Your task to perform on an android device: turn off notifications settings in the gmail app Image 0: 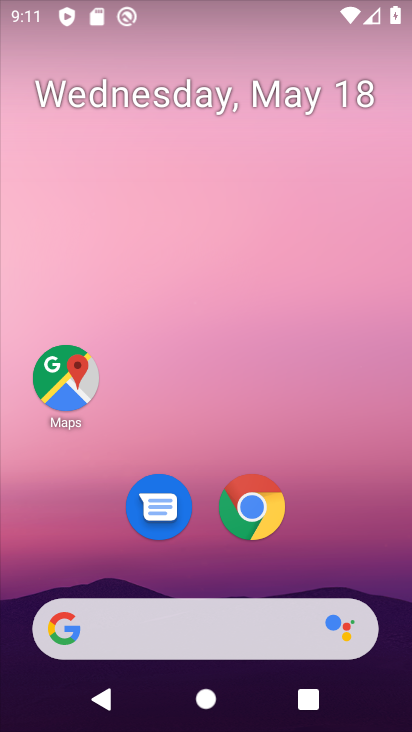
Step 0: drag from (300, 532) to (311, 115)
Your task to perform on an android device: turn off notifications settings in the gmail app Image 1: 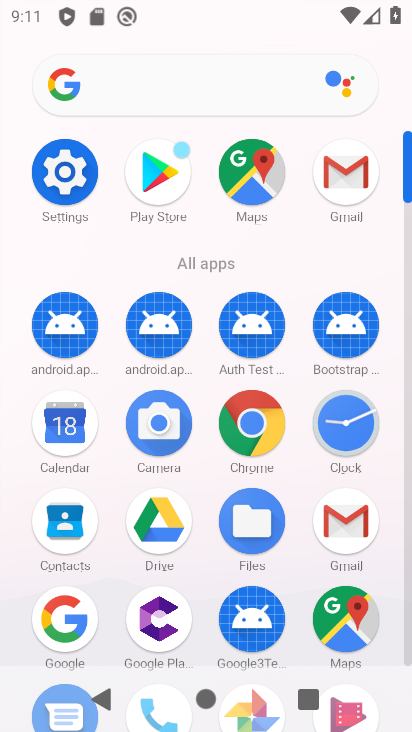
Step 1: click (335, 186)
Your task to perform on an android device: turn off notifications settings in the gmail app Image 2: 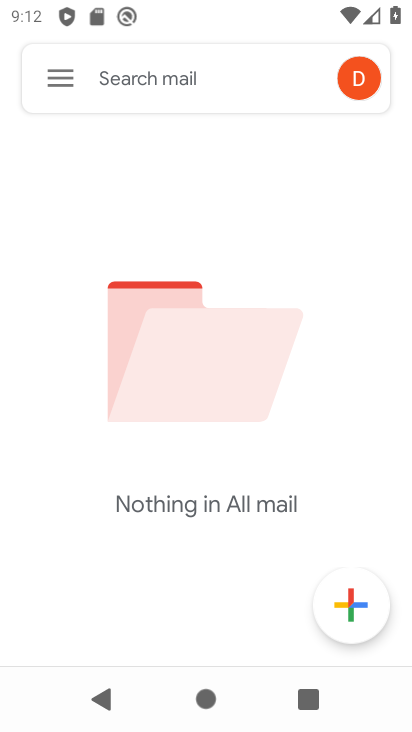
Step 2: click (51, 74)
Your task to perform on an android device: turn off notifications settings in the gmail app Image 3: 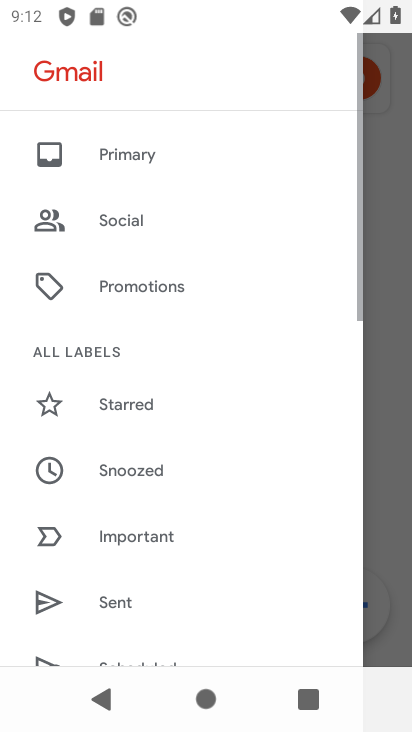
Step 3: drag from (213, 595) to (133, 26)
Your task to perform on an android device: turn off notifications settings in the gmail app Image 4: 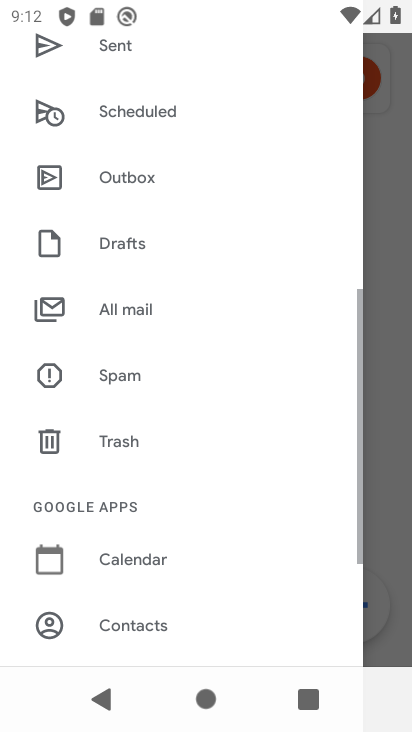
Step 4: drag from (145, 485) to (214, 57)
Your task to perform on an android device: turn off notifications settings in the gmail app Image 5: 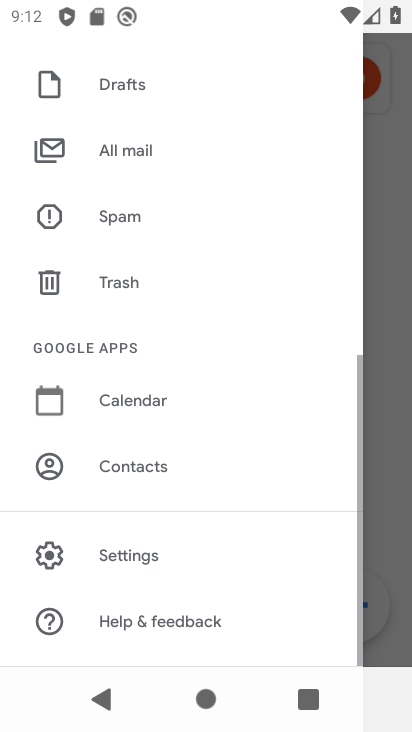
Step 5: click (140, 559)
Your task to perform on an android device: turn off notifications settings in the gmail app Image 6: 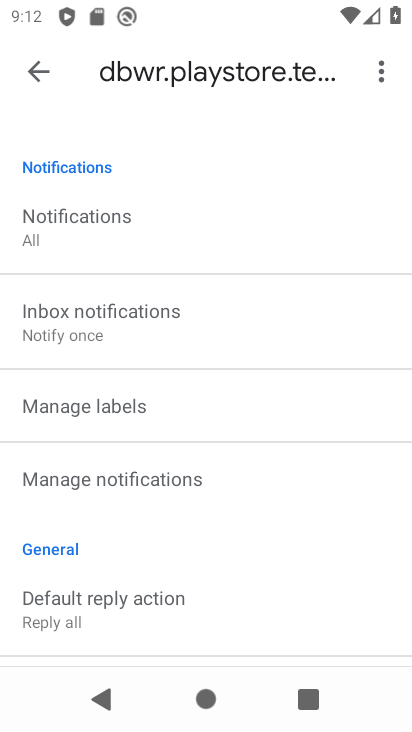
Step 6: click (95, 492)
Your task to perform on an android device: turn off notifications settings in the gmail app Image 7: 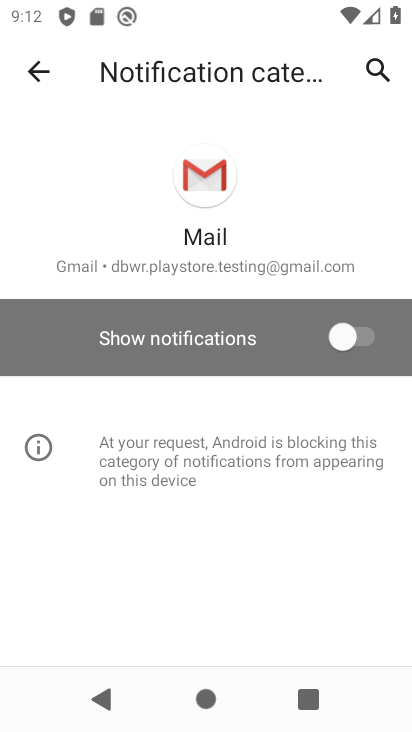
Step 7: task complete